Your task to perform on an android device: Go to Wikipedia Image 0: 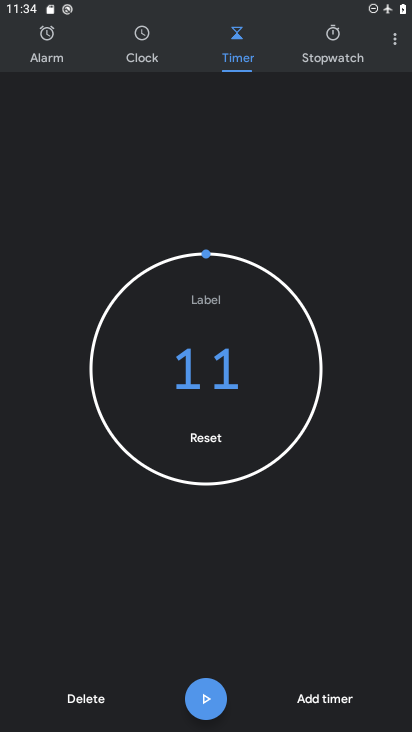
Step 0: press home button
Your task to perform on an android device: Go to Wikipedia Image 1: 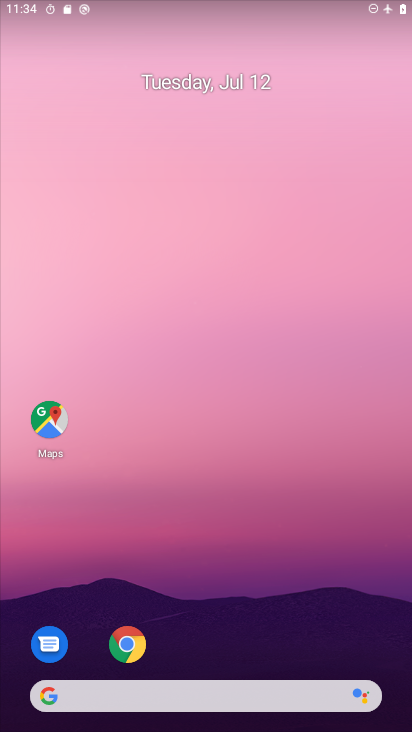
Step 1: click (135, 631)
Your task to perform on an android device: Go to Wikipedia Image 2: 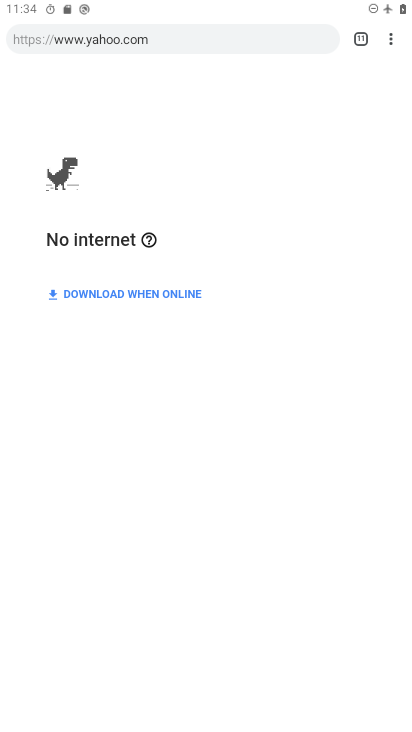
Step 2: click (360, 42)
Your task to perform on an android device: Go to Wikipedia Image 3: 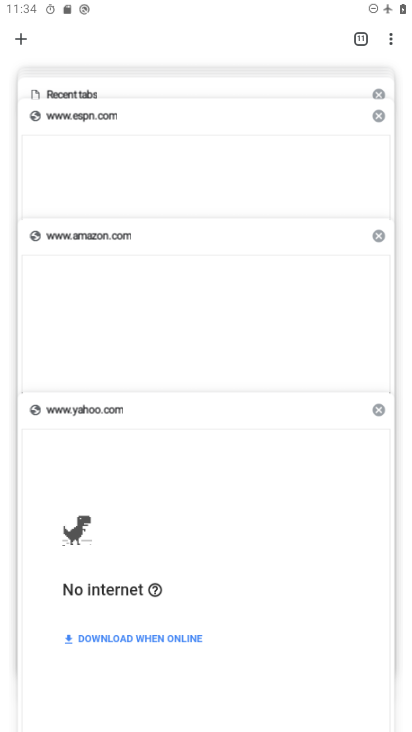
Step 3: click (26, 36)
Your task to perform on an android device: Go to Wikipedia Image 4: 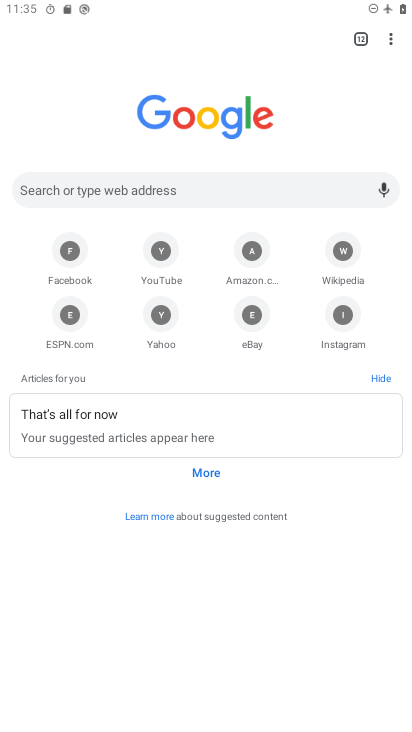
Step 4: click (342, 269)
Your task to perform on an android device: Go to Wikipedia Image 5: 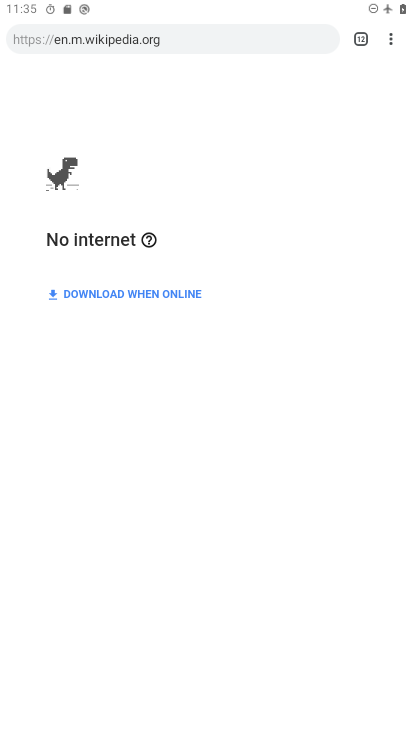
Step 5: task complete